Your task to perform on an android device: open app "Facebook" (install if not already installed) Image 0: 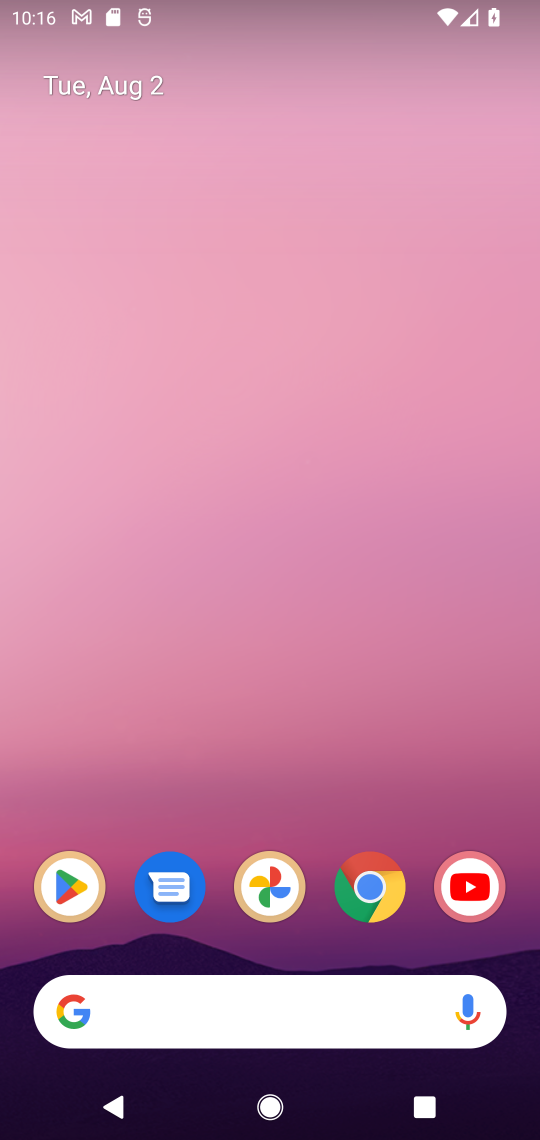
Step 0: drag from (274, 948) to (523, 105)
Your task to perform on an android device: open app "Facebook" (install if not already installed) Image 1: 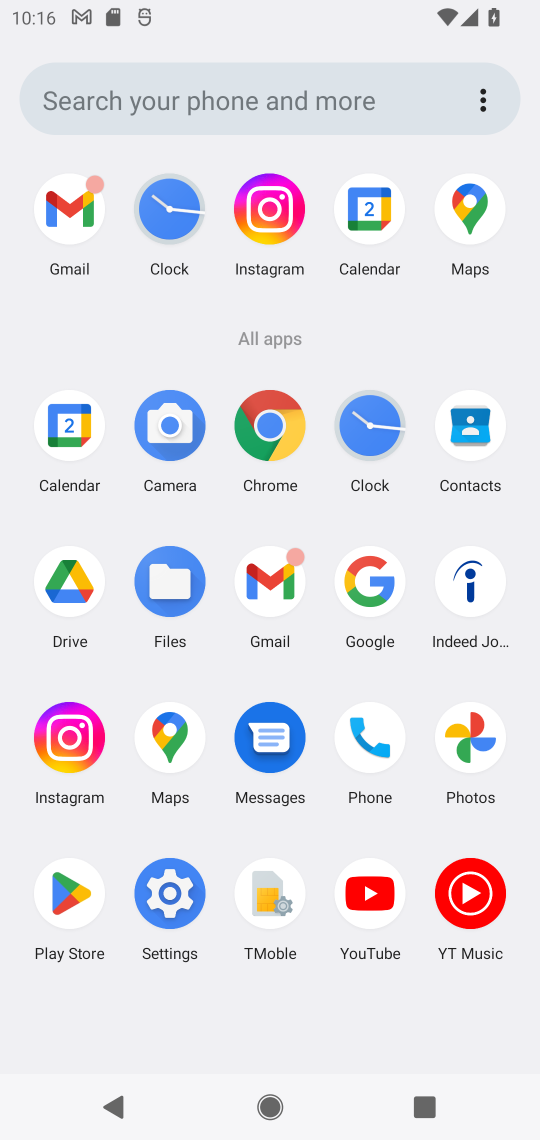
Step 1: click (65, 906)
Your task to perform on an android device: open app "Facebook" (install if not already installed) Image 2: 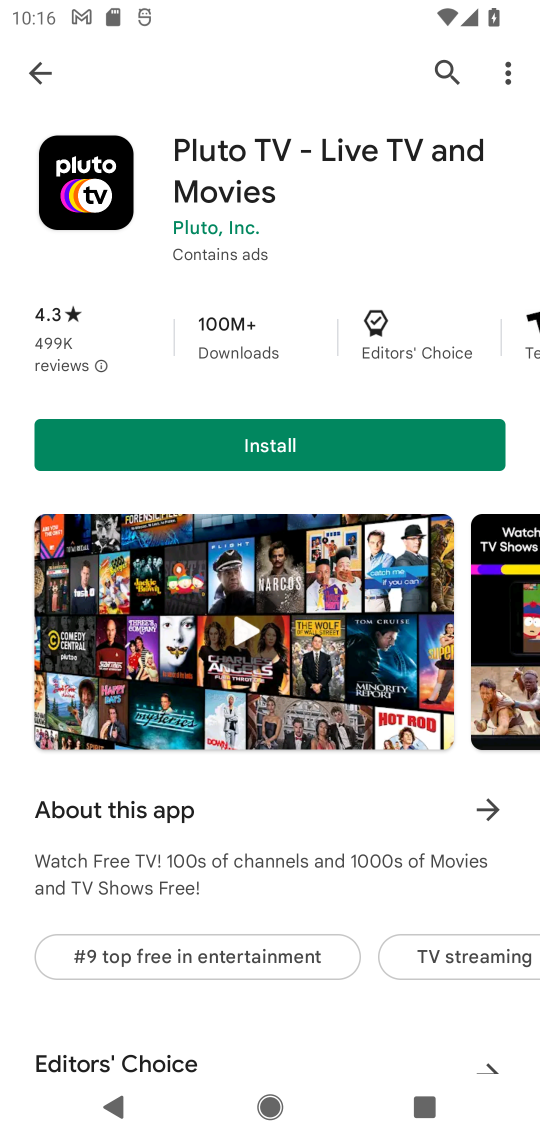
Step 2: click (21, 47)
Your task to perform on an android device: open app "Facebook" (install if not already installed) Image 3: 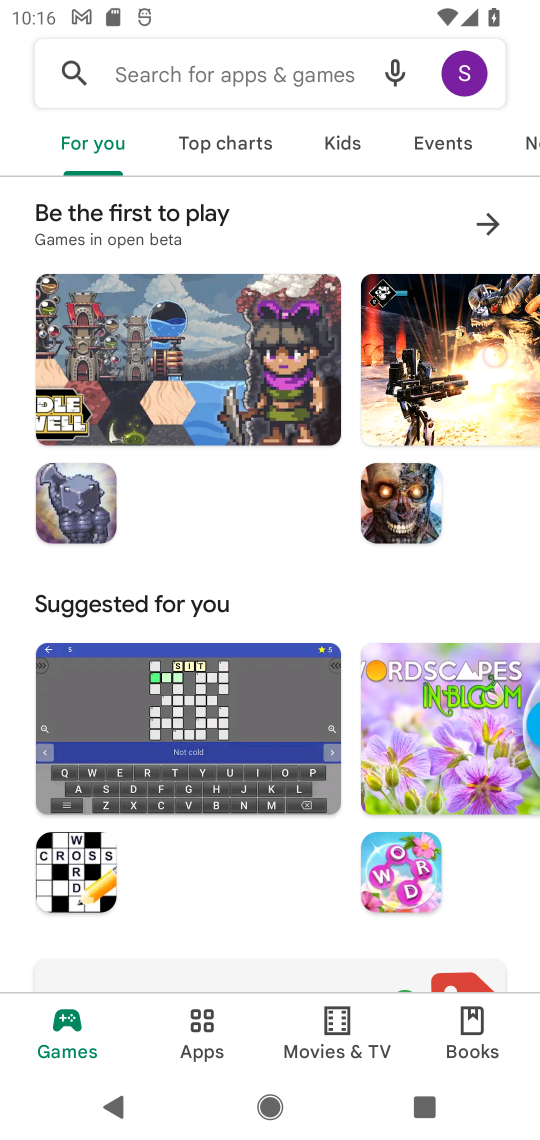
Step 3: click (177, 70)
Your task to perform on an android device: open app "Facebook" (install if not already installed) Image 4: 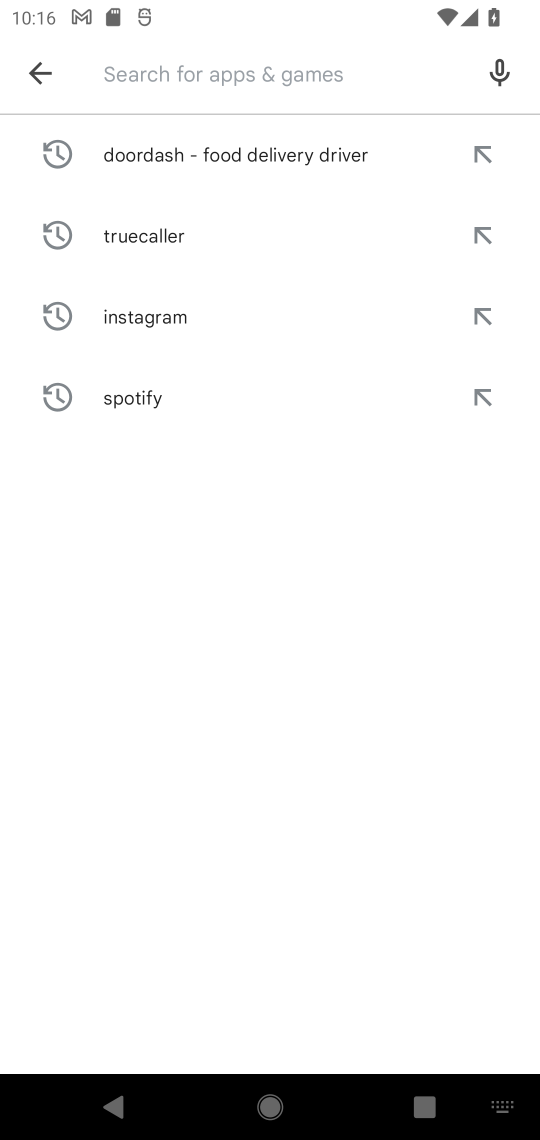
Step 4: type "Facebook"
Your task to perform on an android device: open app "Facebook" (install if not already installed) Image 5: 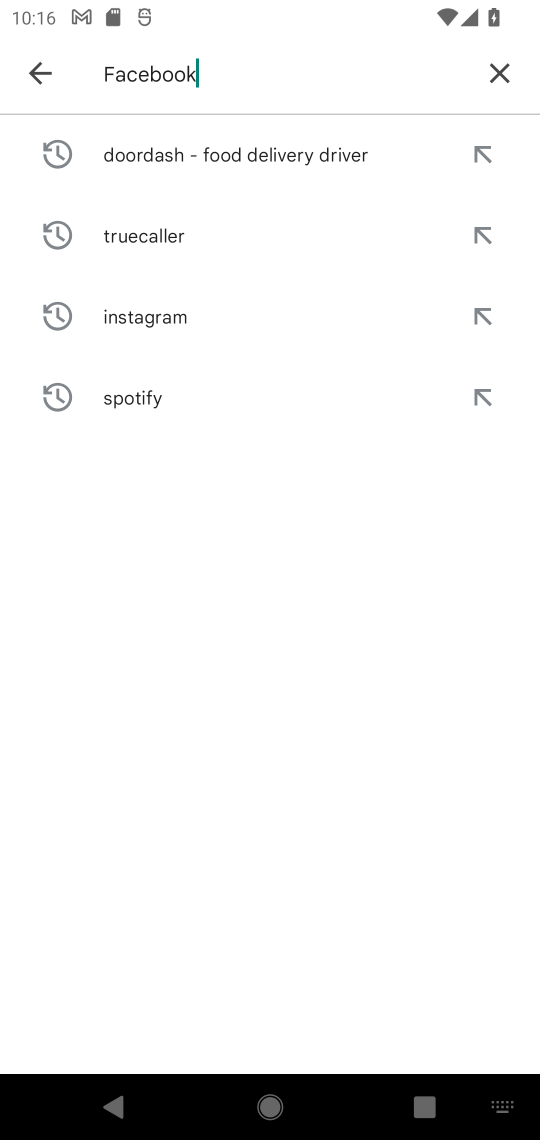
Step 5: type ""
Your task to perform on an android device: open app "Facebook" (install if not already installed) Image 6: 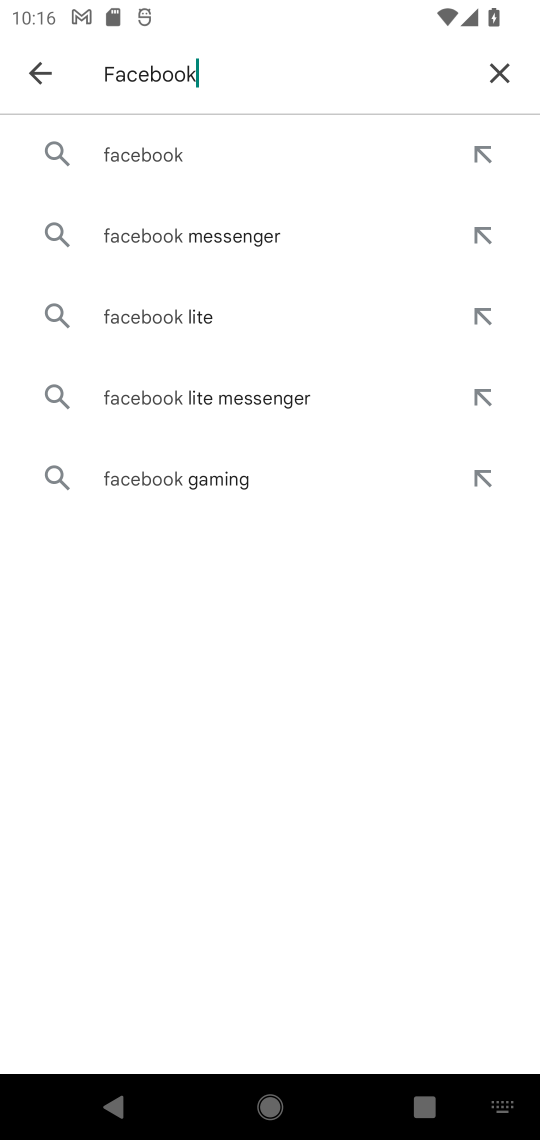
Step 6: click (139, 157)
Your task to perform on an android device: open app "Facebook" (install if not already installed) Image 7: 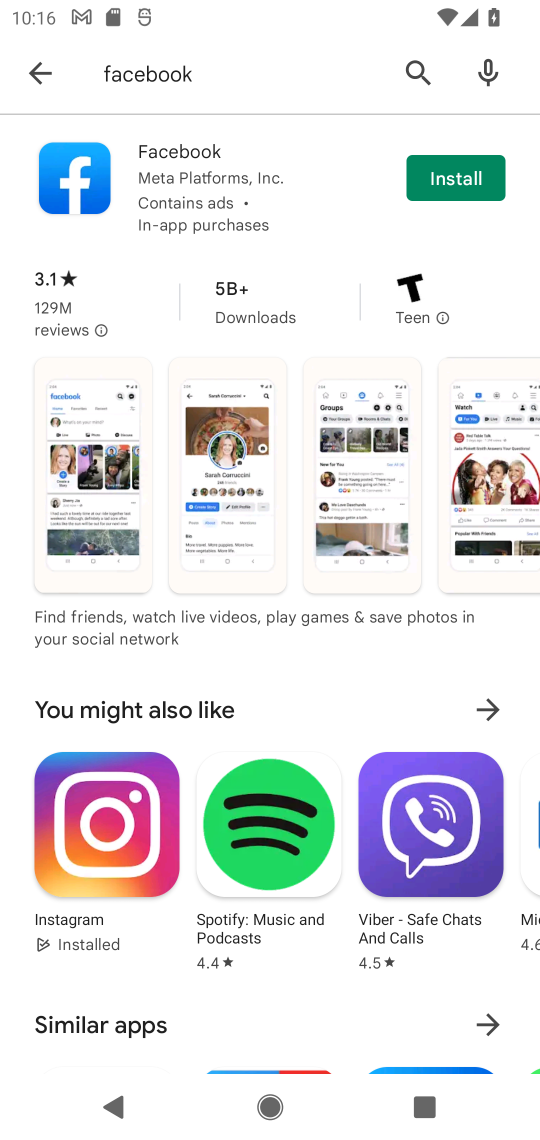
Step 7: click (449, 185)
Your task to perform on an android device: open app "Facebook" (install if not already installed) Image 8: 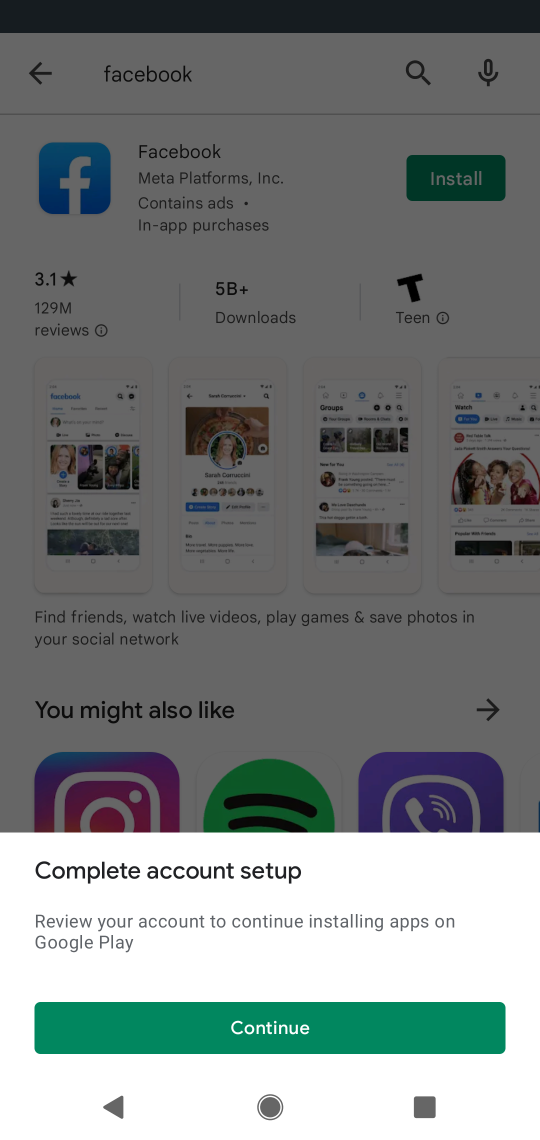
Step 8: click (304, 1035)
Your task to perform on an android device: open app "Facebook" (install if not already installed) Image 9: 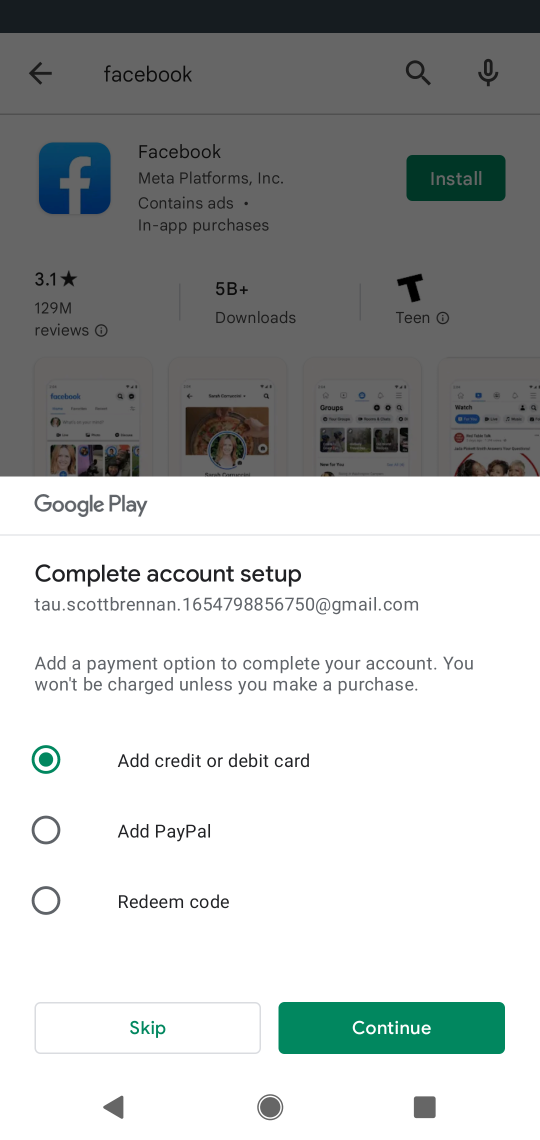
Step 9: click (187, 1028)
Your task to perform on an android device: open app "Facebook" (install if not already installed) Image 10: 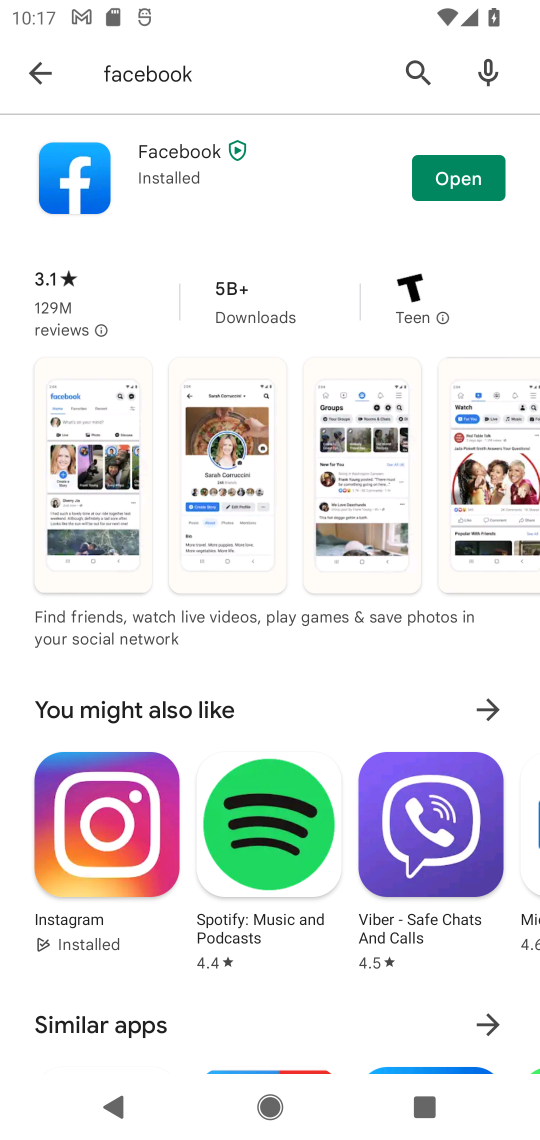
Step 10: click (461, 176)
Your task to perform on an android device: open app "Facebook" (install if not already installed) Image 11: 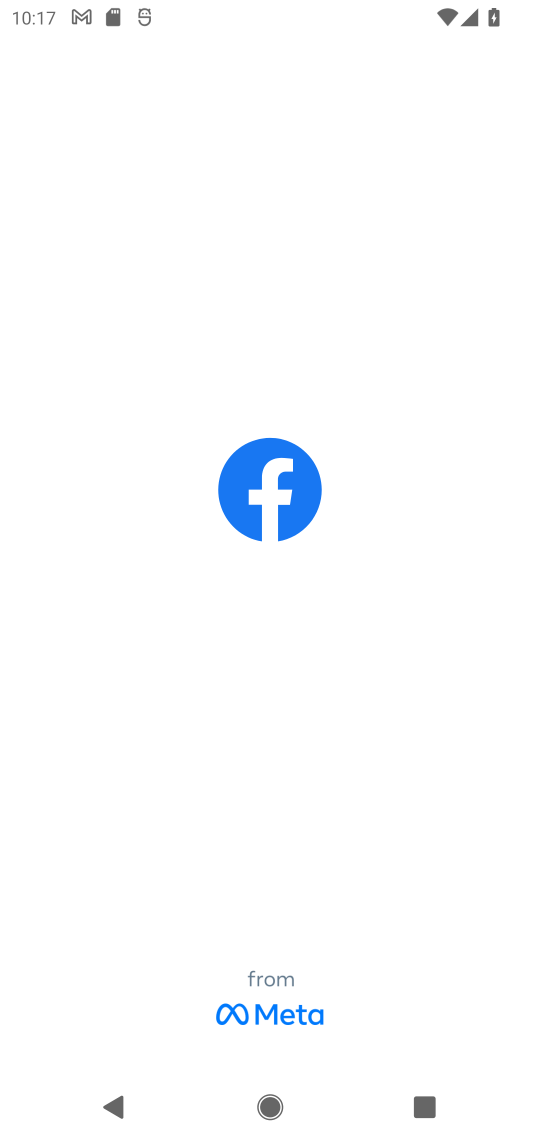
Step 11: task complete